Your task to perform on an android device: open app "WhatsApp Messenger" Image 0: 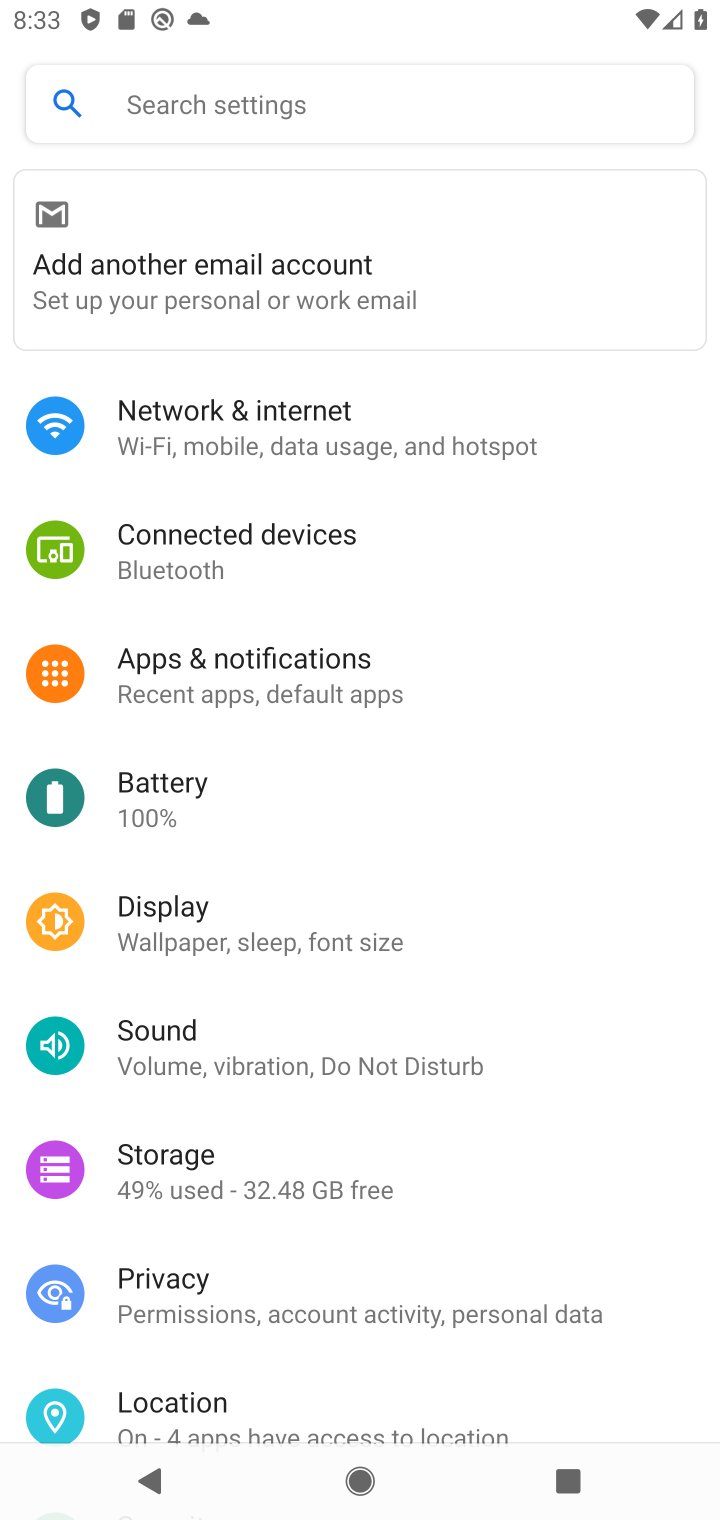
Step 0: press home button
Your task to perform on an android device: open app "WhatsApp Messenger" Image 1: 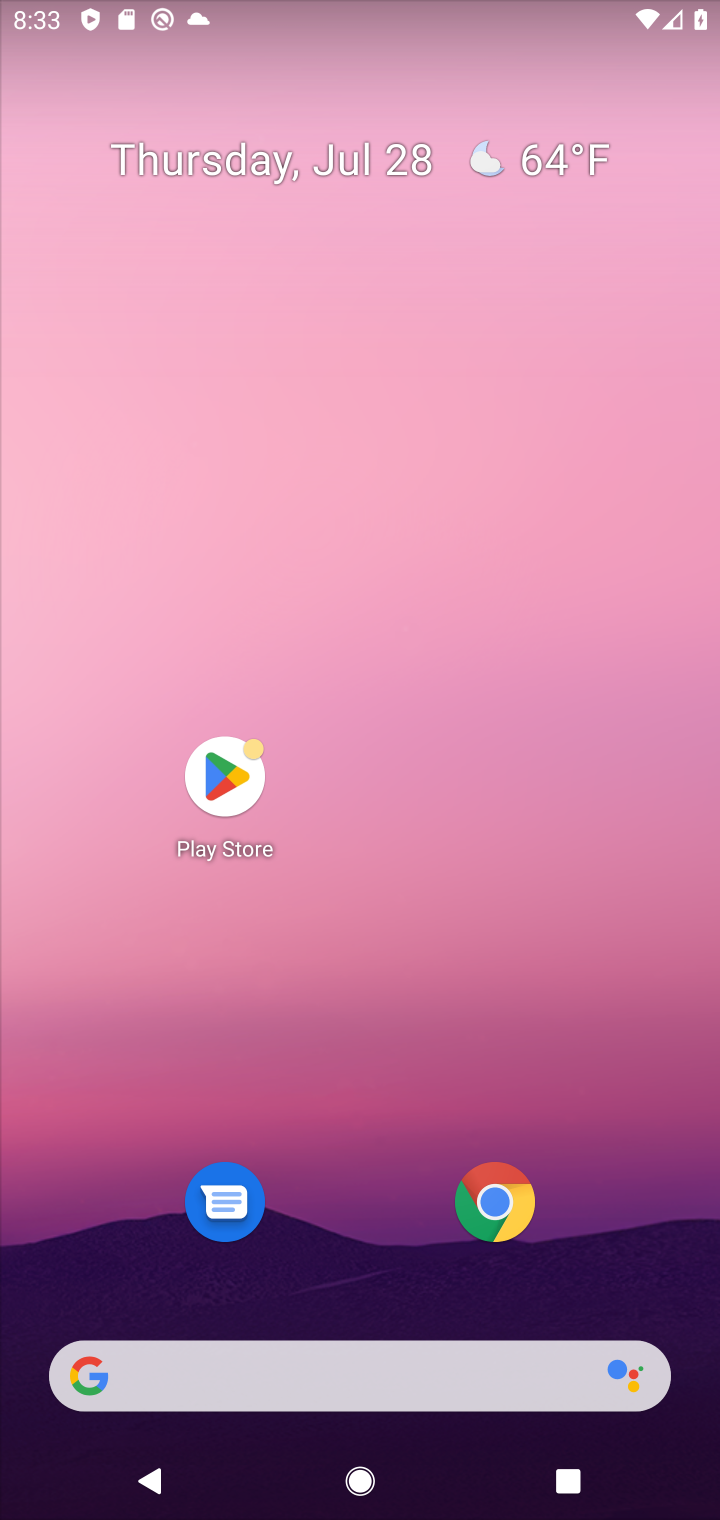
Step 1: click (220, 771)
Your task to perform on an android device: open app "WhatsApp Messenger" Image 2: 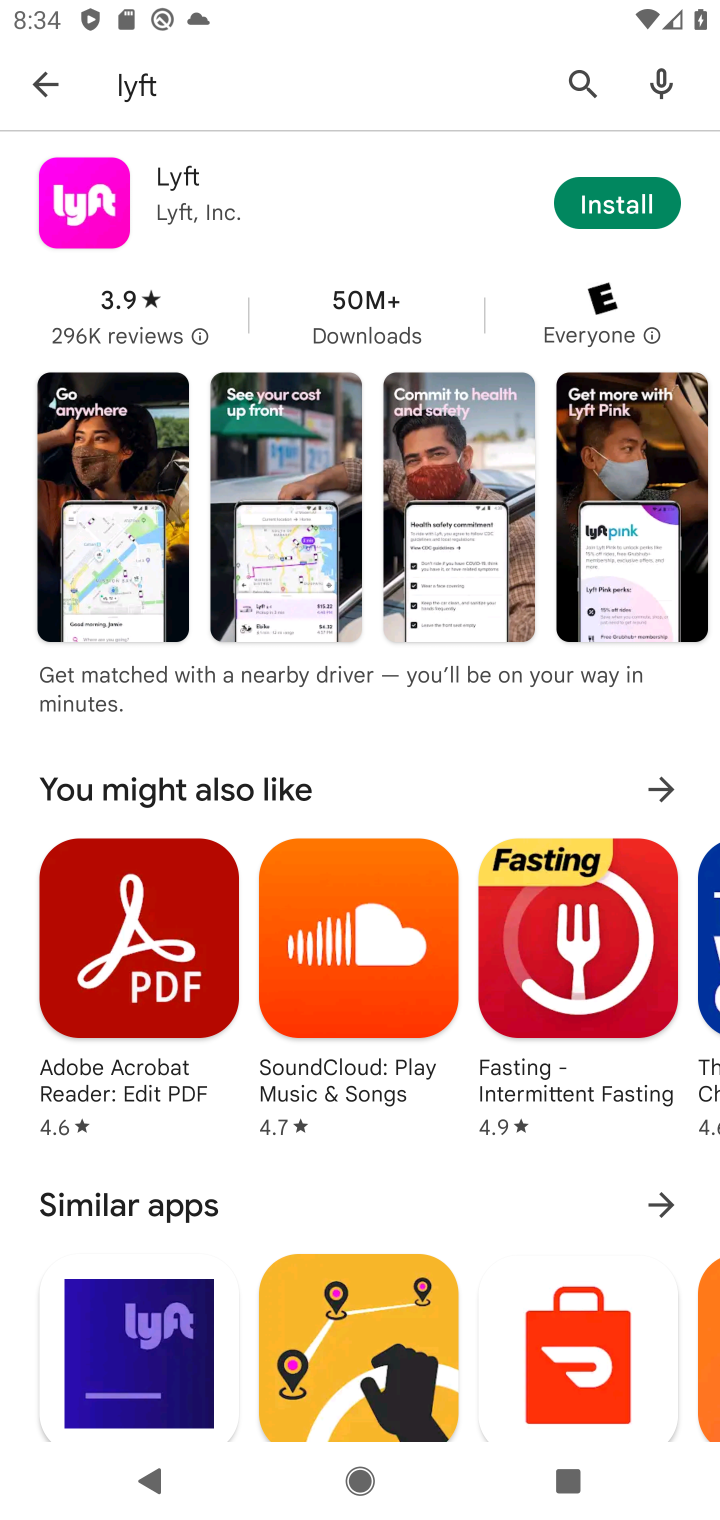
Step 2: click (39, 83)
Your task to perform on an android device: open app "WhatsApp Messenger" Image 3: 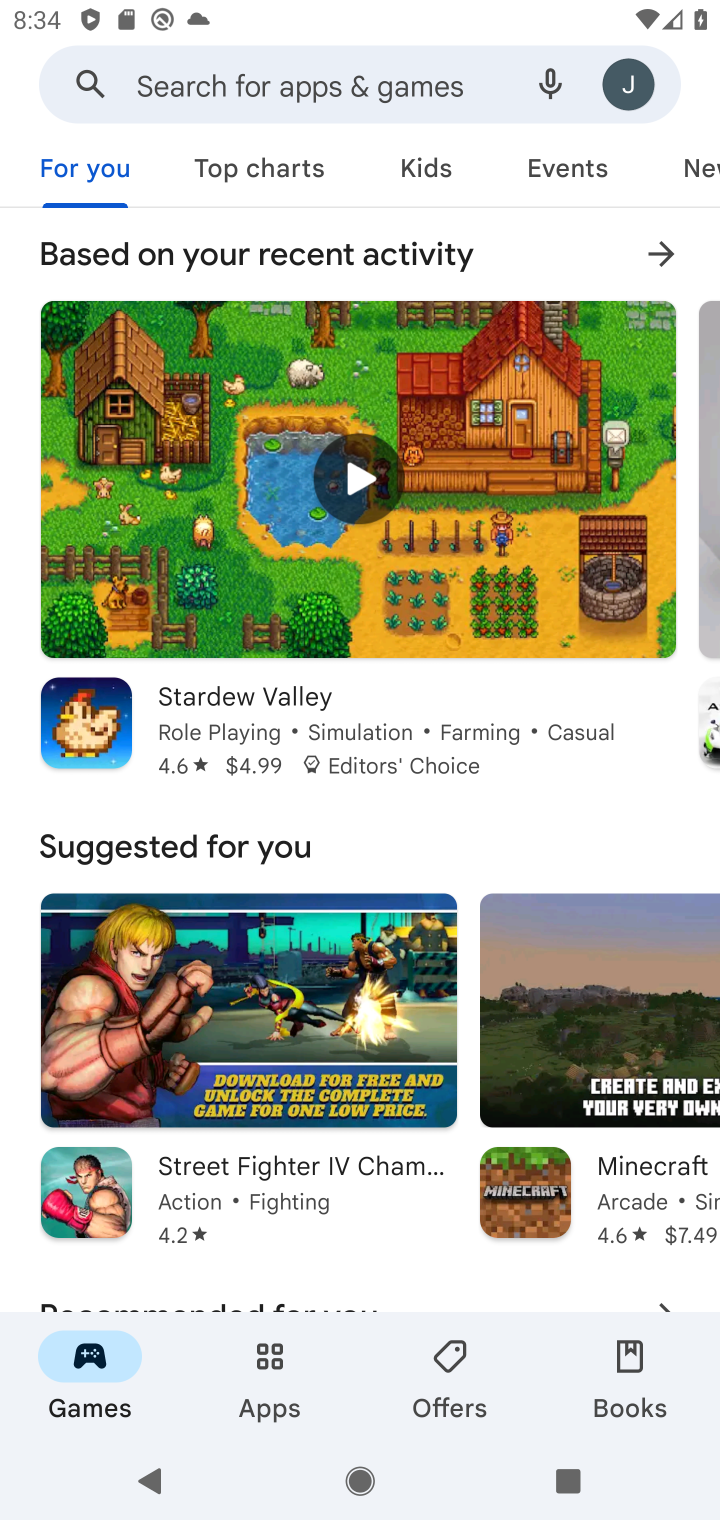
Step 3: click (355, 70)
Your task to perform on an android device: open app "WhatsApp Messenger" Image 4: 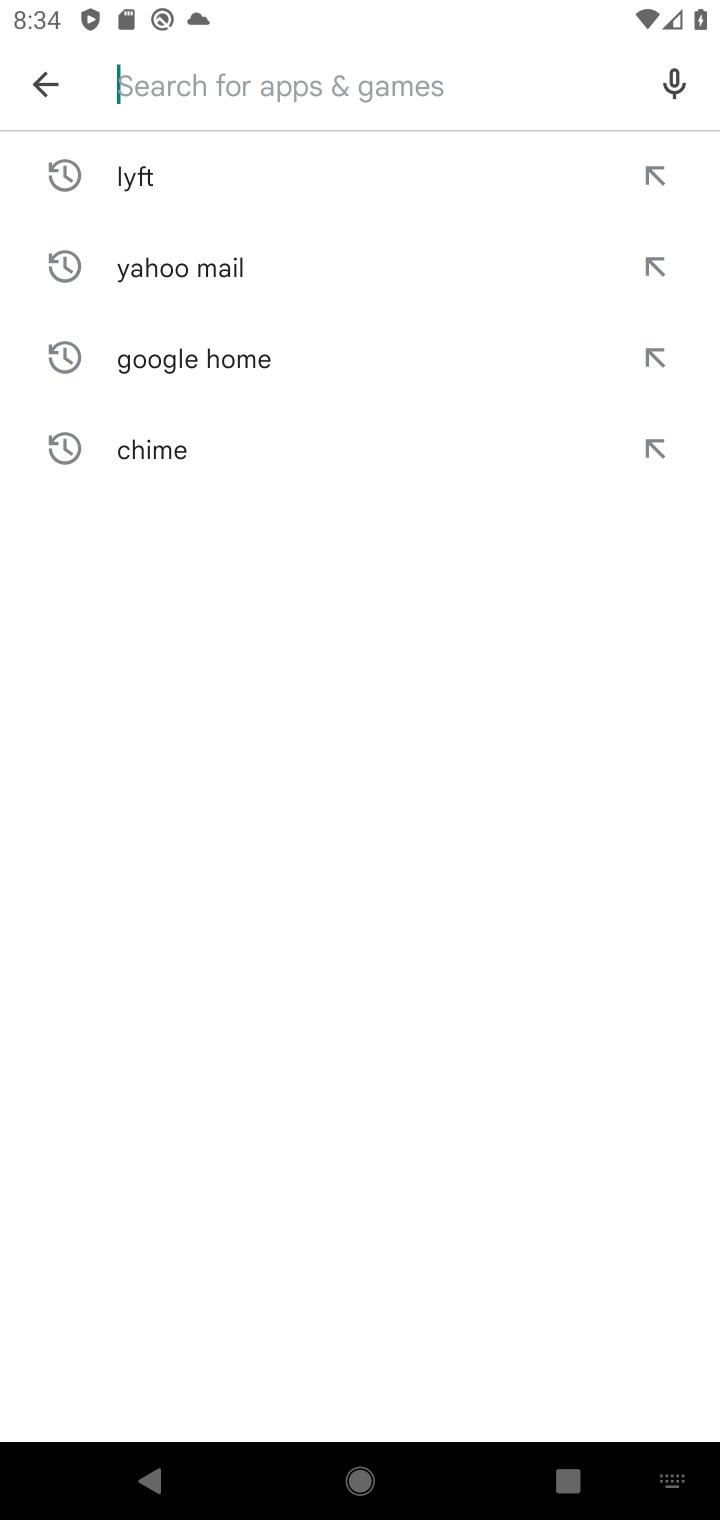
Step 4: type "whatsaap messenger"
Your task to perform on an android device: open app "WhatsApp Messenger" Image 5: 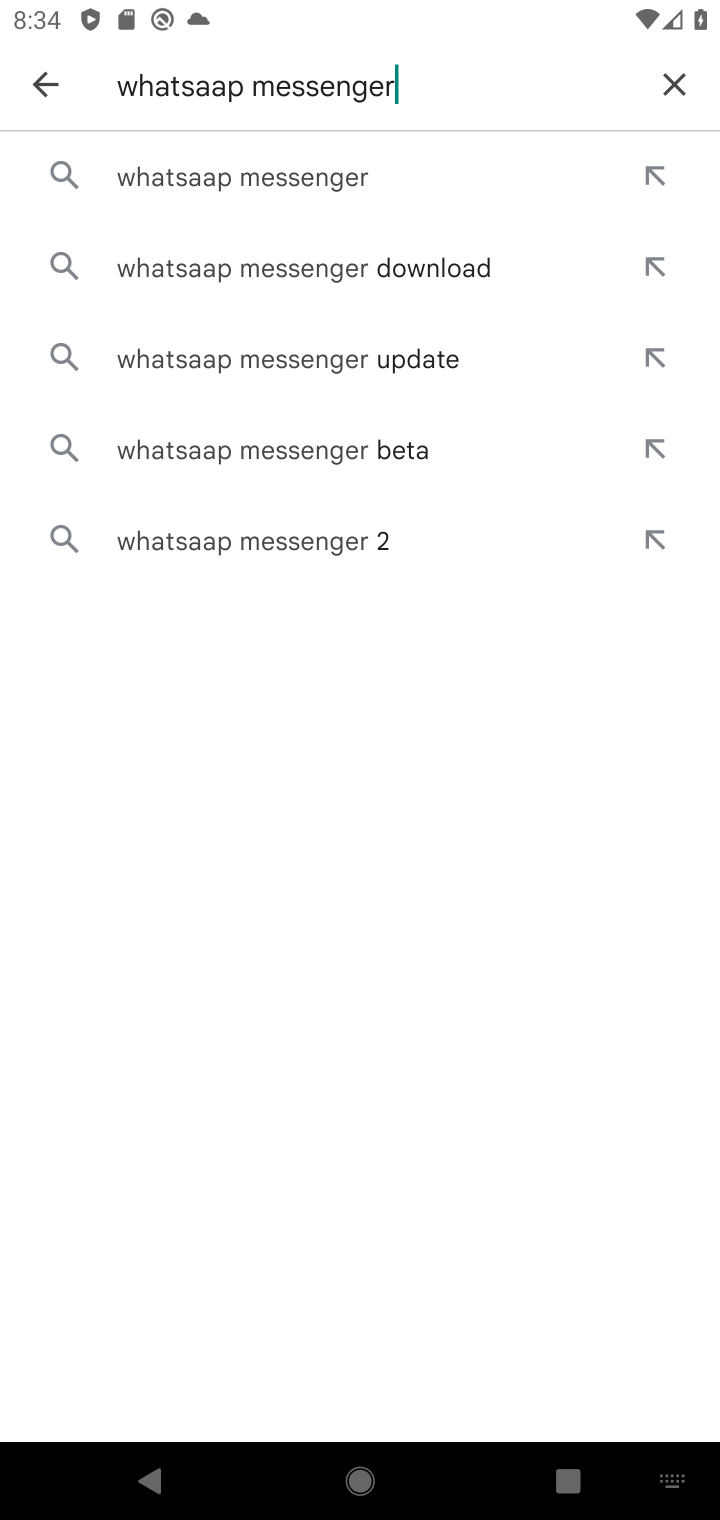
Step 5: click (229, 166)
Your task to perform on an android device: open app "WhatsApp Messenger" Image 6: 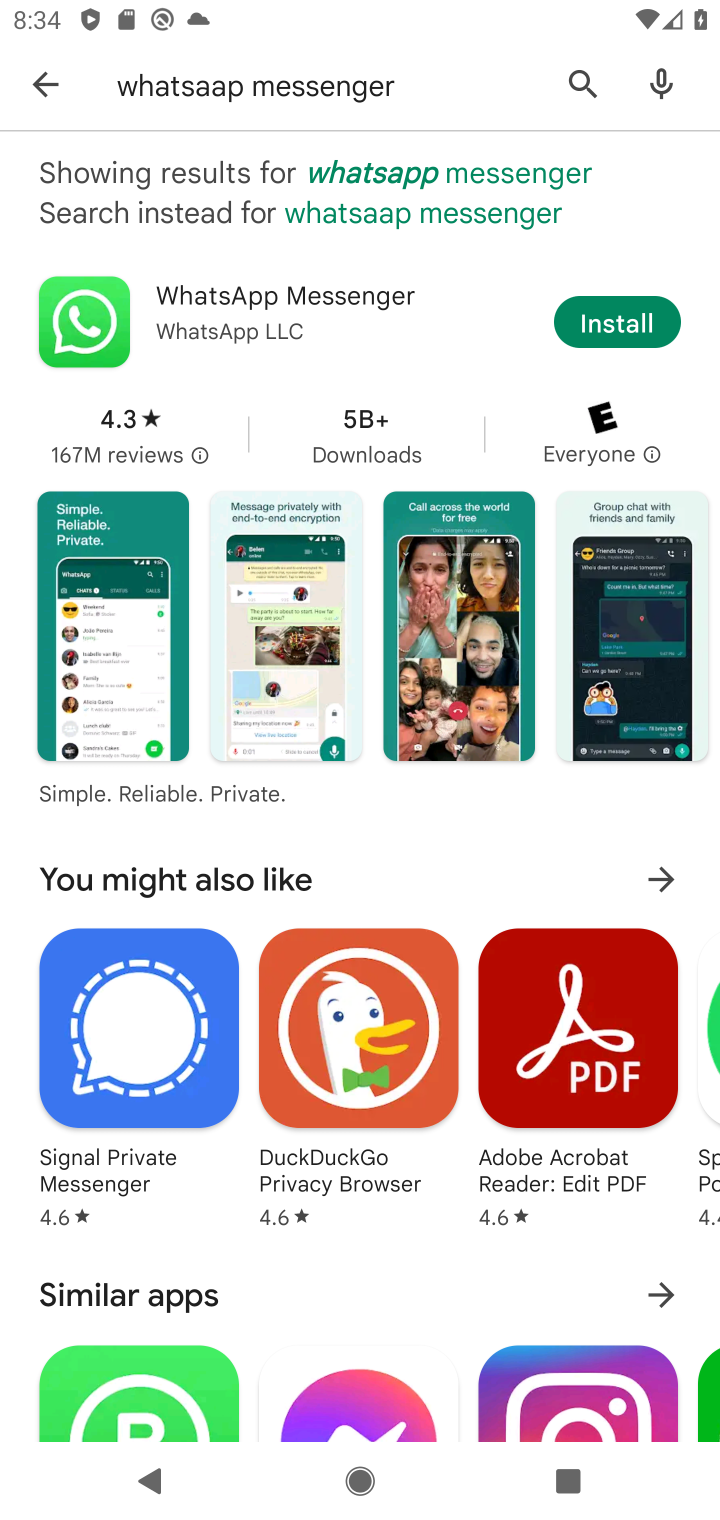
Step 6: task complete